Your task to perform on an android device: toggle notifications settings in the gmail app Image 0: 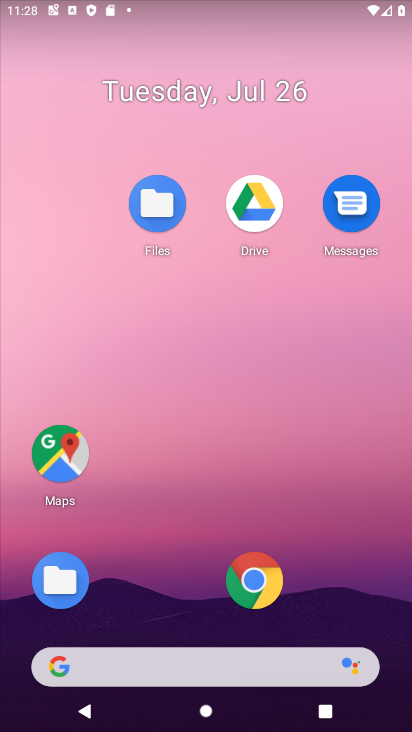
Step 0: drag from (176, 634) to (193, 146)
Your task to perform on an android device: toggle notifications settings in the gmail app Image 1: 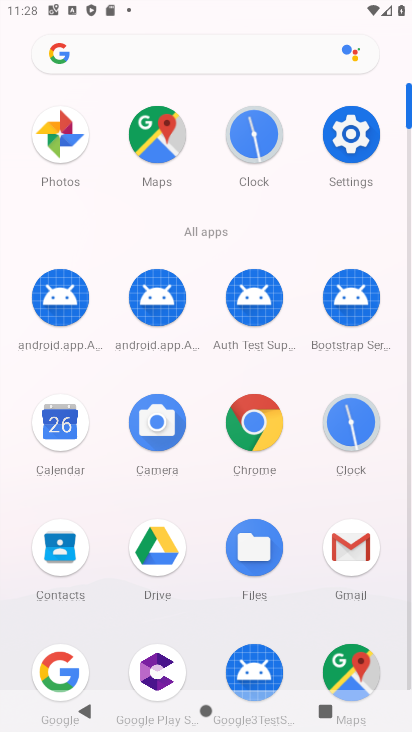
Step 1: click (335, 542)
Your task to perform on an android device: toggle notifications settings in the gmail app Image 2: 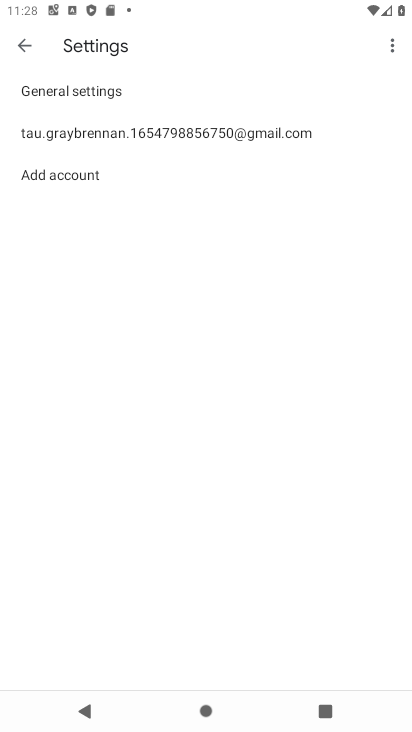
Step 2: click (85, 145)
Your task to perform on an android device: toggle notifications settings in the gmail app Image 3: 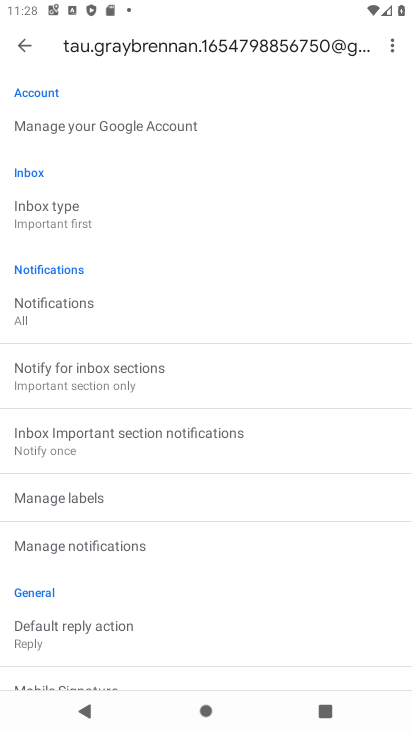
Step 3: click (73, 310)
Your task to perform on an android device: toggle notifications settings in the gmail app Image 4: 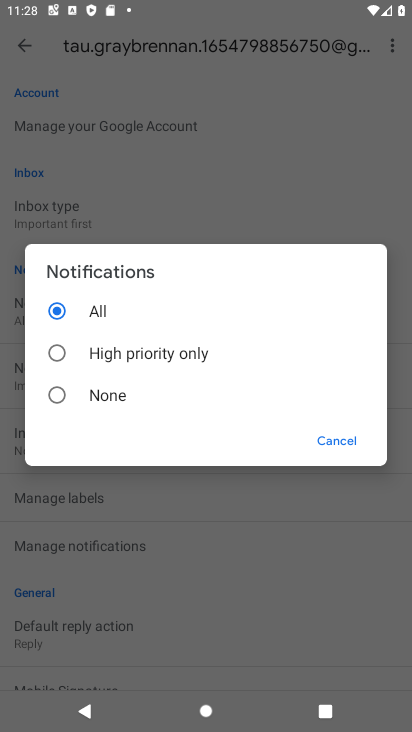
Step 4: click (75, 343)
Your task to perform on an android device: toggle notifications settings in the gmail app Image 5: 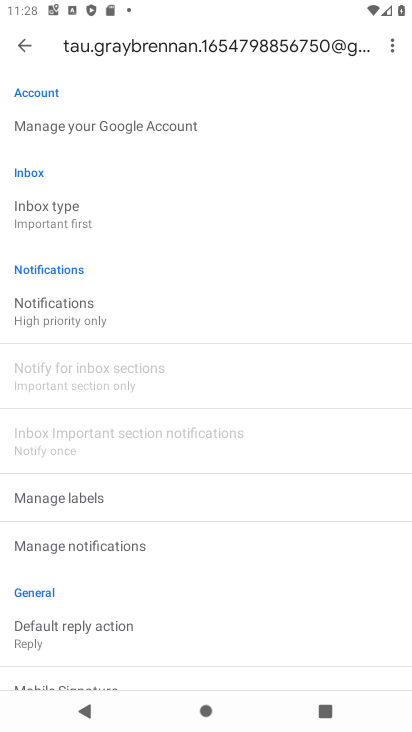
Step 5: task complete